Your task to perform on an android device: Open Wikipedia Image 0: 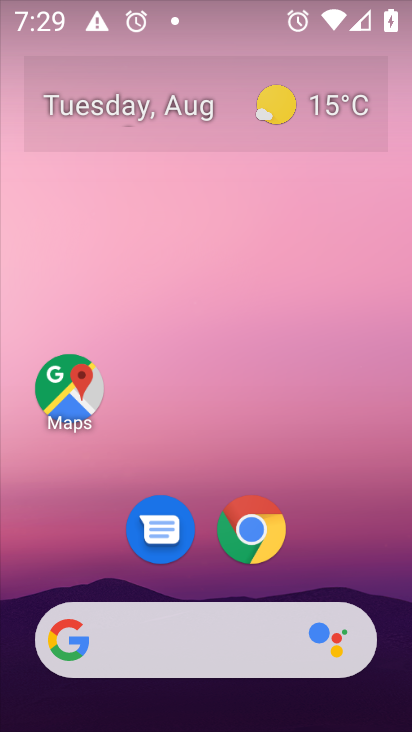
Step 0: click (63, 652)
Your task to perform on an android device: Open Wikipedia Image 1: 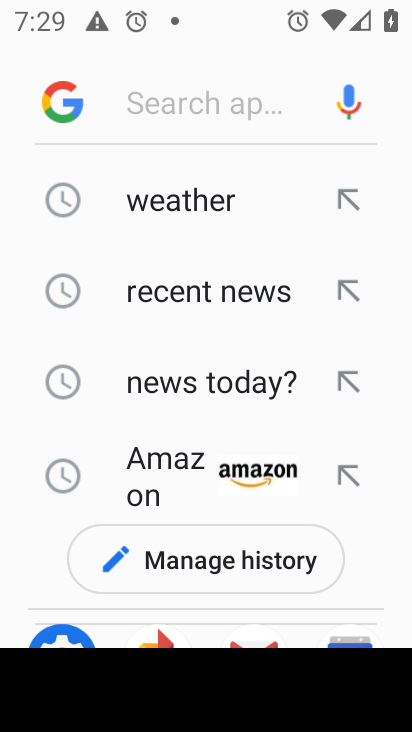
Step 1: type "Wikipedia"
Your task to perform on an android device: Open Wikipedia Image 2: 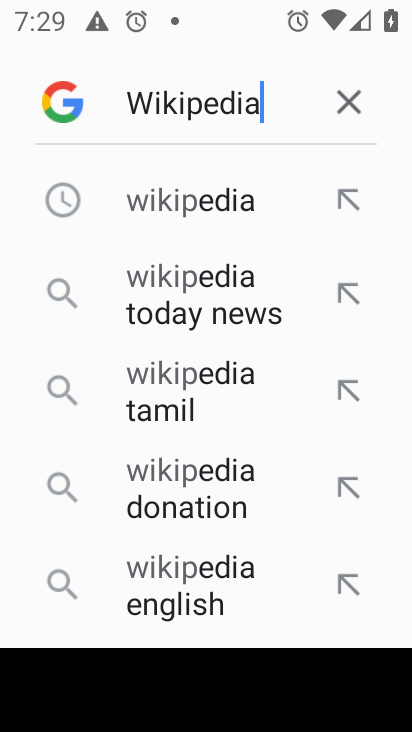
Step 2: press enter
Your task to perform on an android device: Open Wikipedia Image 3: 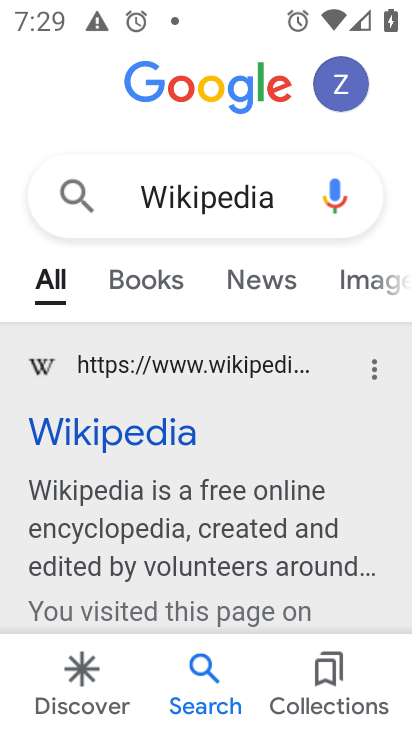
Step 3: click (97, 436)
Your task to perform on an android device: Open Wikipedia Image 4: 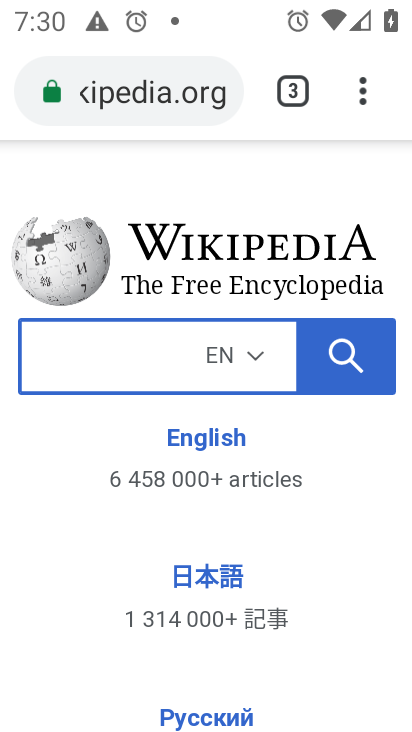
Step 4: task complete